Your task to perform on an android device: Check the weather Image 0: 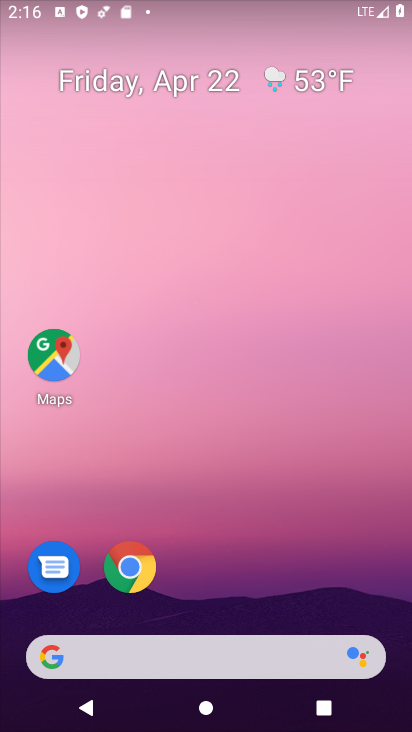
Step 0: click (277, 76)
Your task to perform on an android device: Check the weather Image 1: 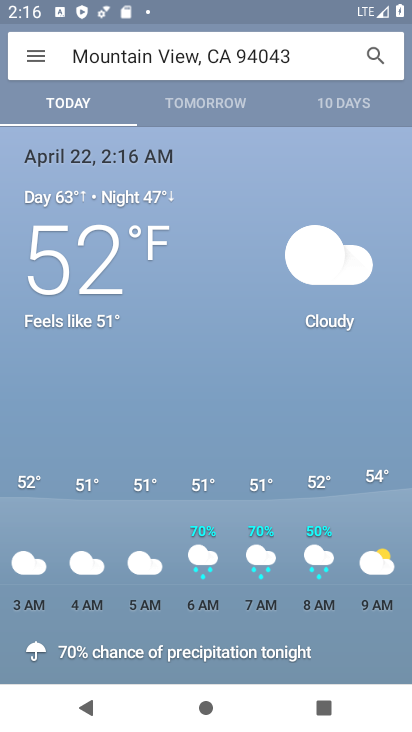
Step 1: task complete